Your task to perform on an android device: Open internet settings Image 0: 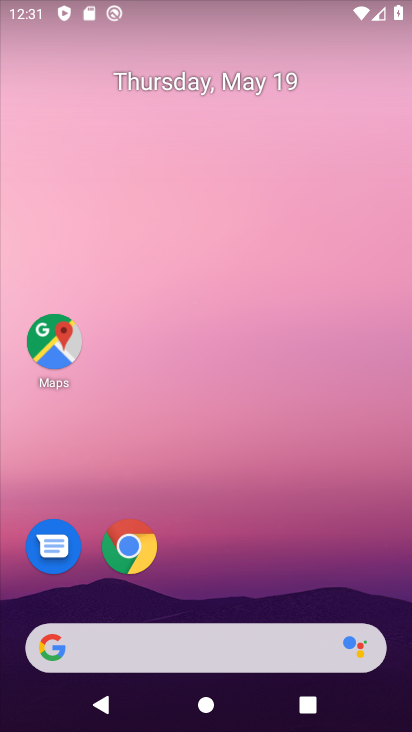
Step 0: drag from (266, 560) to (236, 92)
Your task to perform on an android device: Open internet settings Image 1: 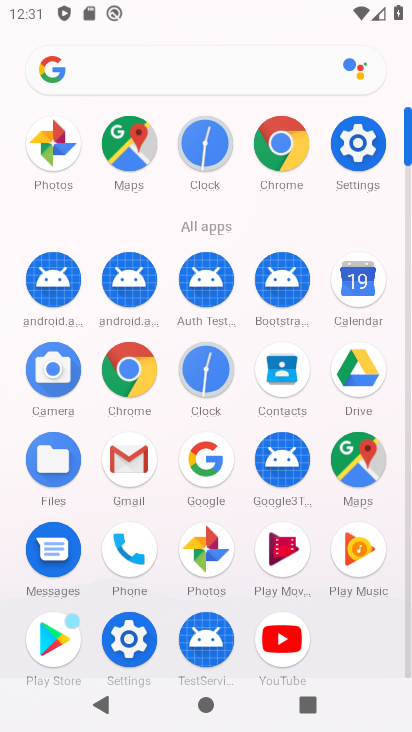
Step 1: click (356, 141)
Your task to perform on an android device: Open internet settings Image 2: 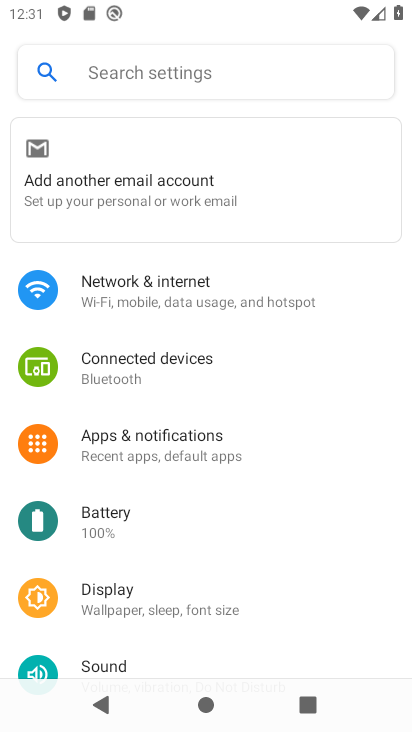
Step 2: click (189, 303)
Your task to perform on an android device: Open internet settings Image 3: 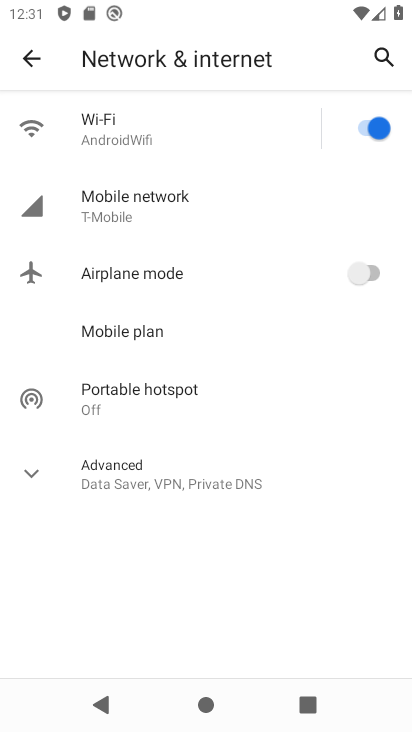
Step 3: click (97, 142)
Your task to perform on an android device: Open internet settings Image 4: 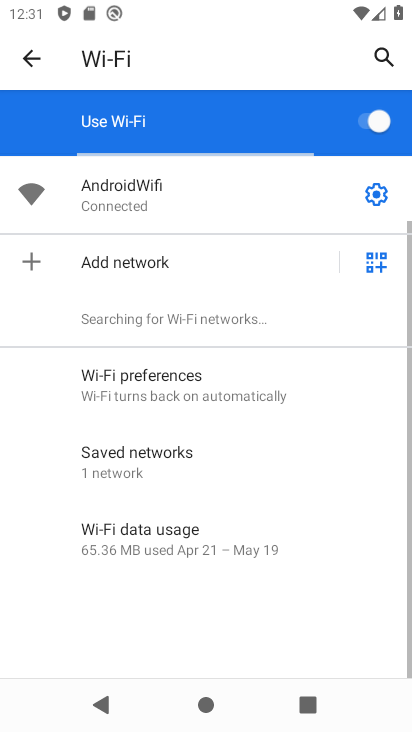
Step 4: task complete